Your task to perform on an android device: Open notification settings Image 0: 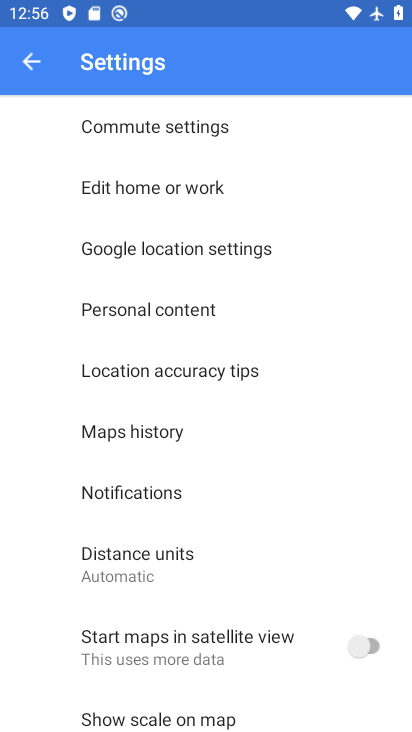
Step 0: press home button
Your task to perform on an android device: Open notification settings Image 1: 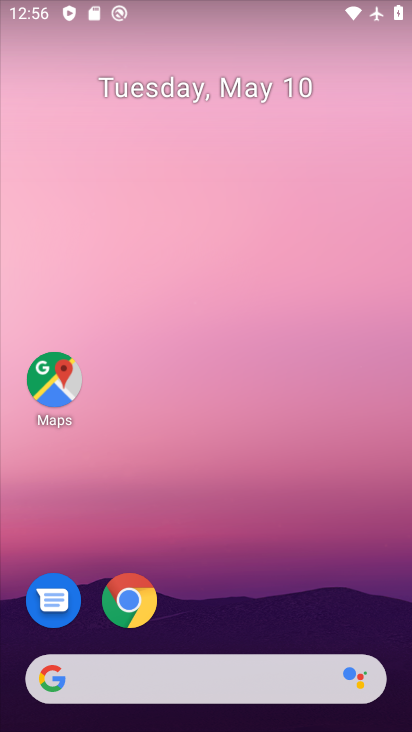
Step 1: drag from (173, 648) to (207, 215)
Your task to perform on an android device: Open notification settings Image 2: 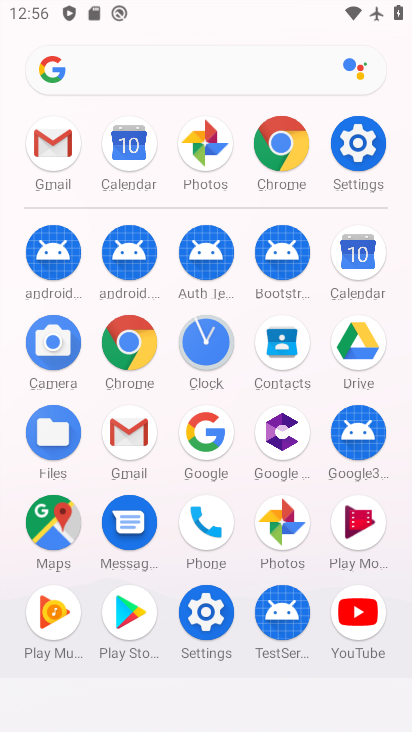
Step 2: click (377, 156)
Your task to perform on an android device: Open notification settings Image 3: 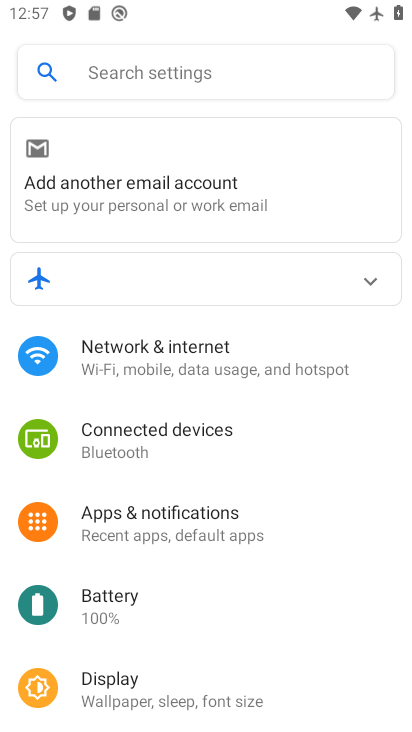
Step 3: click (191, 548)
Your task to perform on an android device: Open notification settings Image 4: 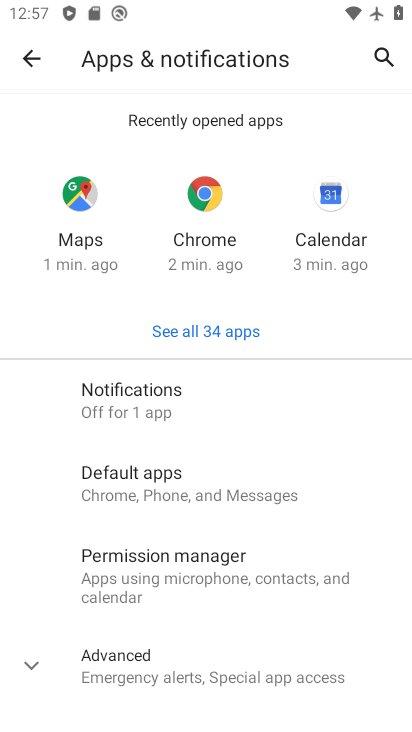
Step 4: task complete